Your task to perform on an android device: turn smart compose on in the gmail app Image 0: 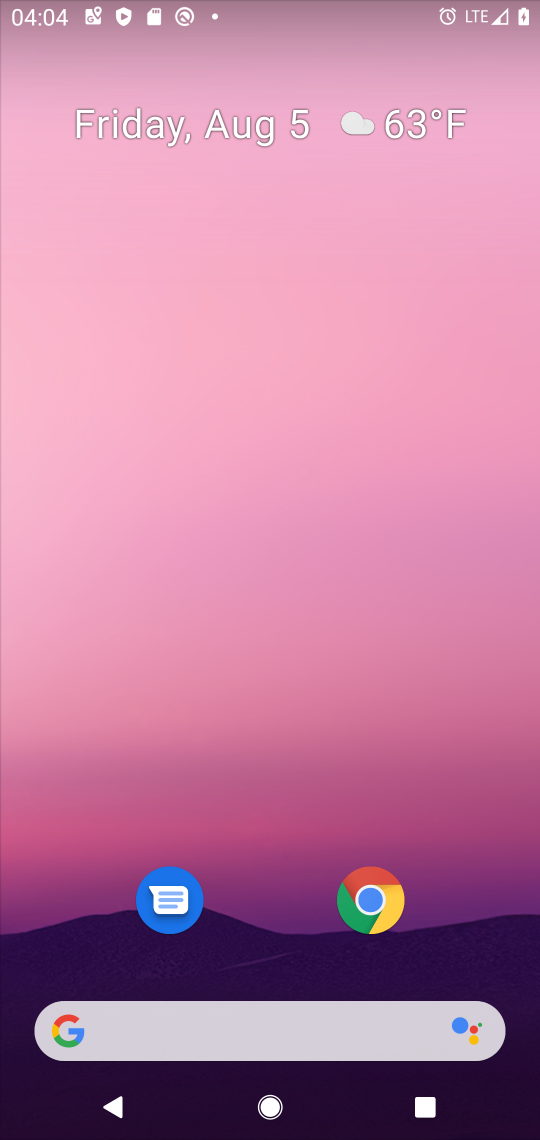
Step 0: drag from (269, 906) to (532, 135)
Your task to perform on an android device: turn smart compose on in the gmail app Image 1: 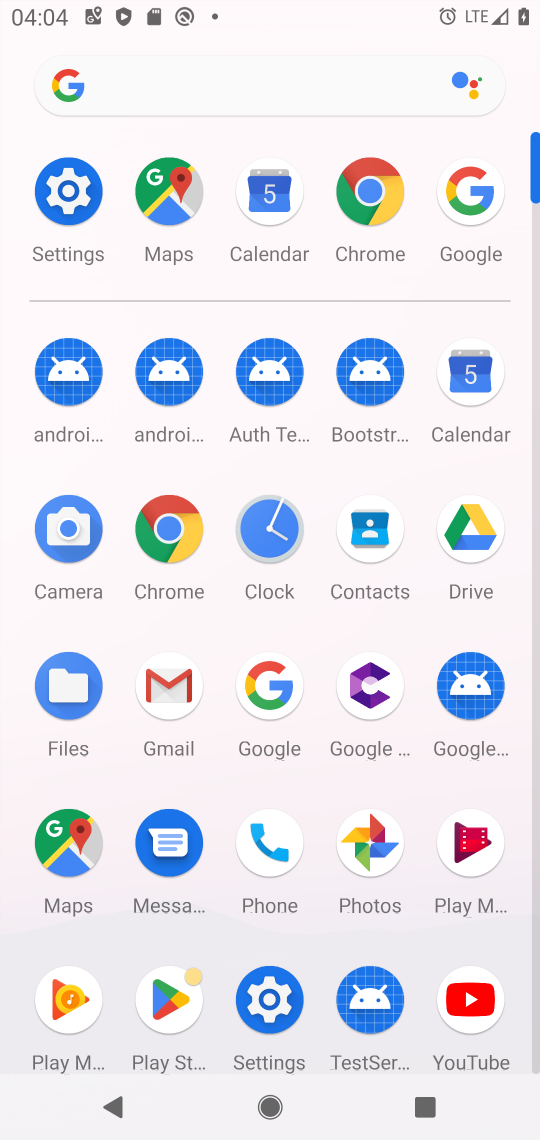
Step 1: click (172, 692)
Your task to perform on an android device: turn smart compose on in the gmail app Image 2: 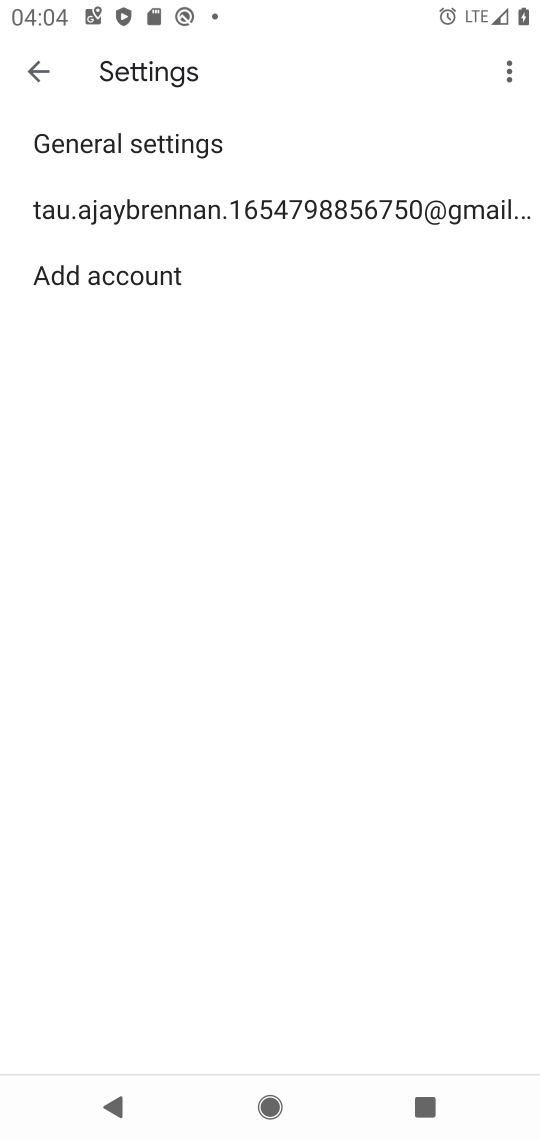
Step 2: click (177, 217)
Your task to perform on an android device: turn smart compose on in the gmail app Image 3: 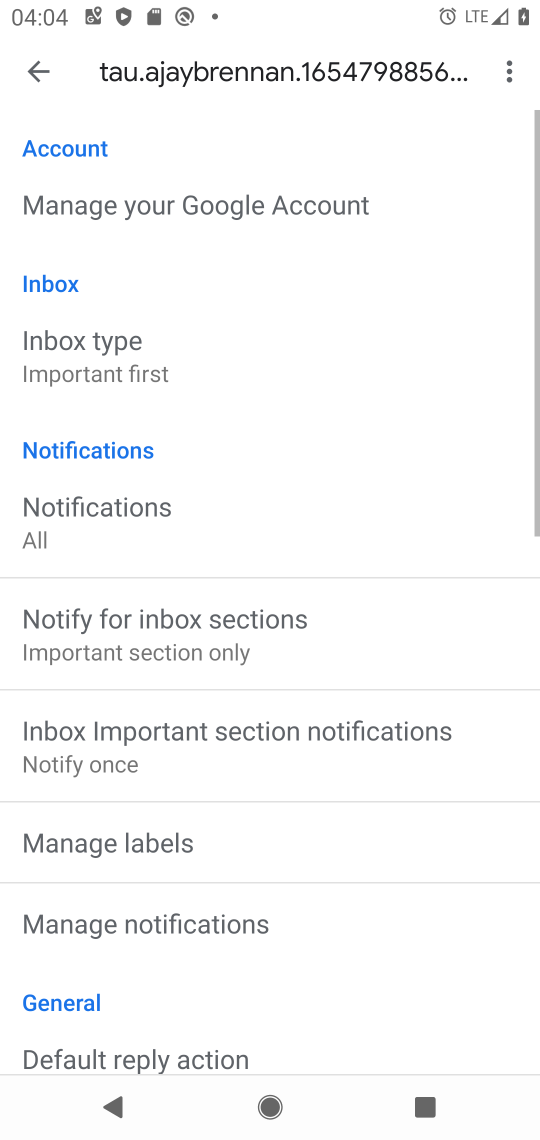
Step 3: task complete